Your task to perform on an android device: Find coffee shops on Maps Image 0: 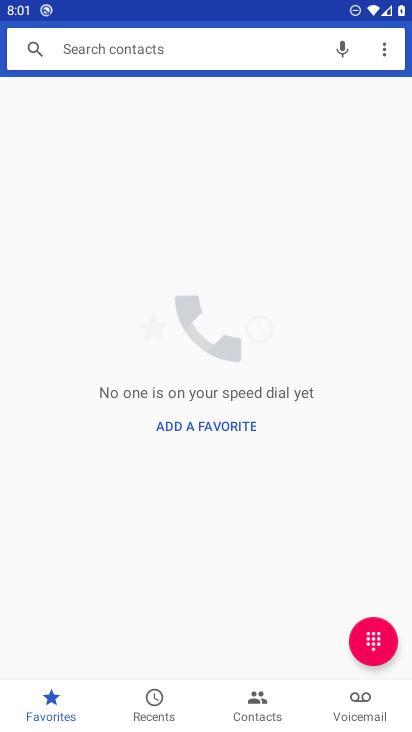
Step 0: press home button
Your task to perform on an android device: Find coffee shops on Maps Image 1: 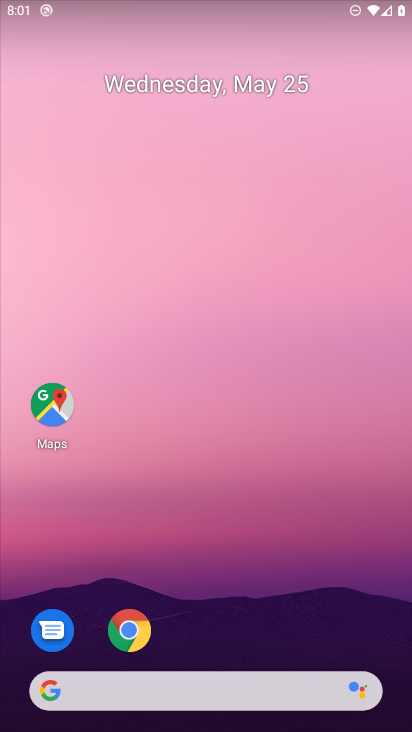
Step 1: click (52, 399)
Your task to perform on an android device: Find coffee shops on Maps Image 2: 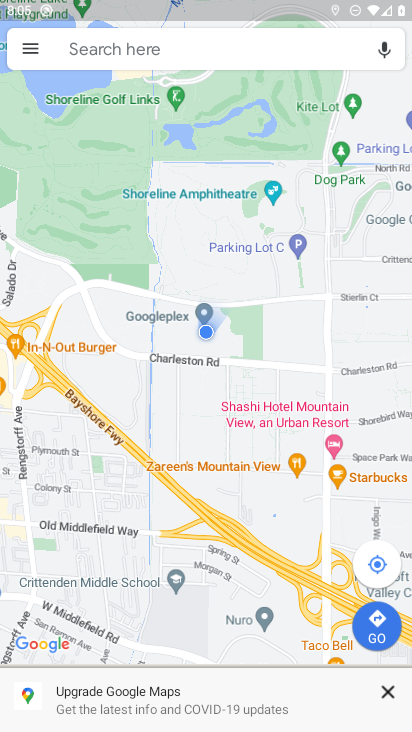
Step 2: click (87, 45)
Your task to perform on an android device: Find coffee shops on Maps Image 3: 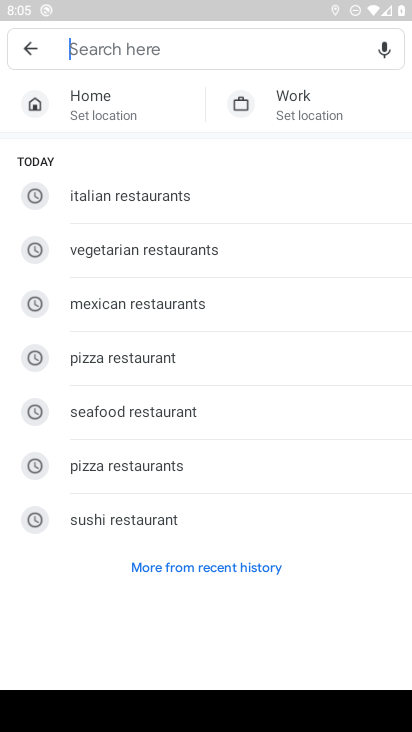
Step 3: type "coffee shopes"
Your task to perform on an android device: Find coffee shops on Maps Image 4: 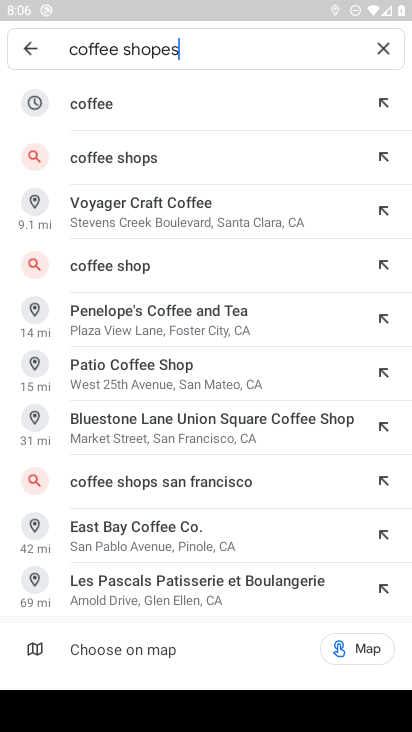
Step 4: click (116, 164)
Your task to perform on an android device: Find coffee shops on Maps Image 5: 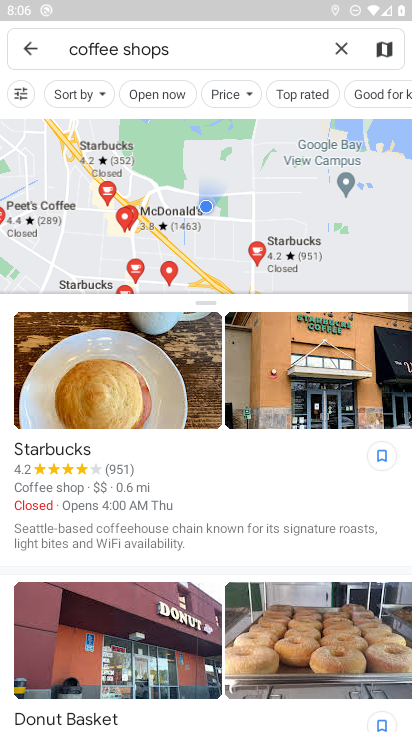
Step 5: task complete